Your task to perform on an android device: Go to Maps Image 0: 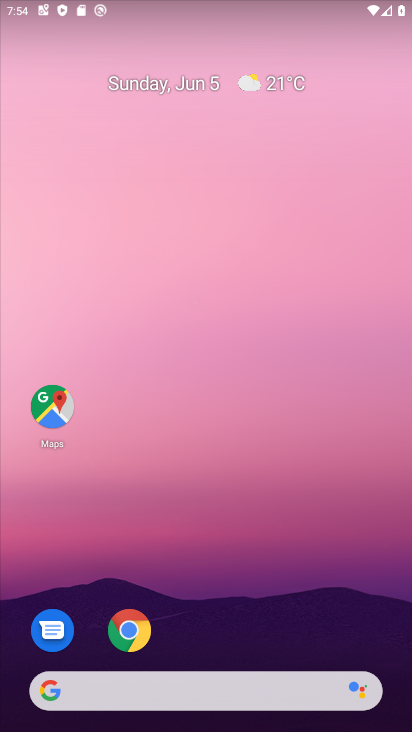
Step 0: click (48, 398)
Your task to perform on an android device: Go to Maps Image 1: 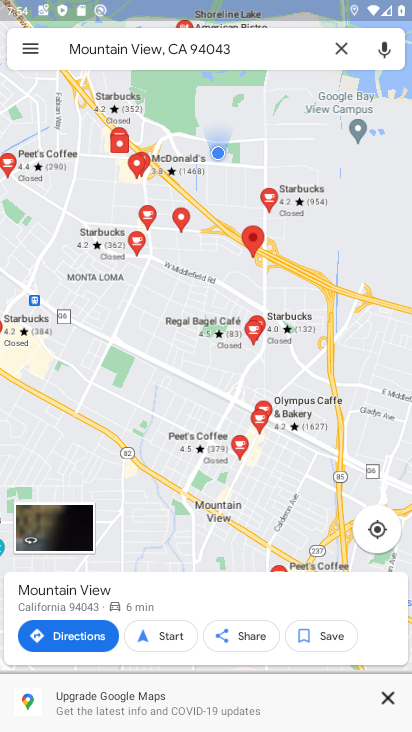
Step 1: click (342, 49)
Your task to perform on an android device: Go to Maps Image 2: 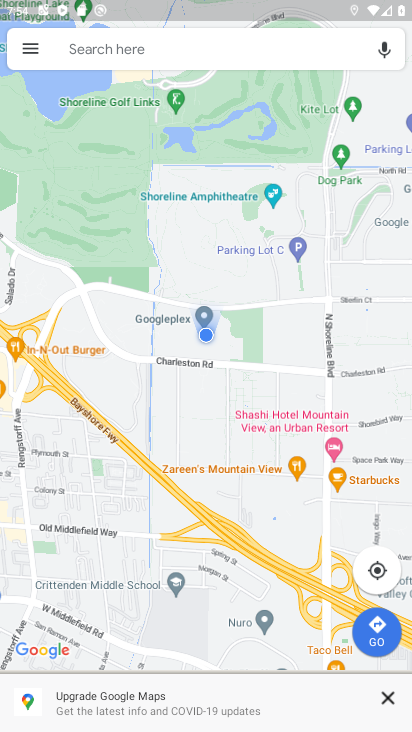
Step 2: task complete